Your task to perform on an android device: move a message to another label in the gmail app Image 0: 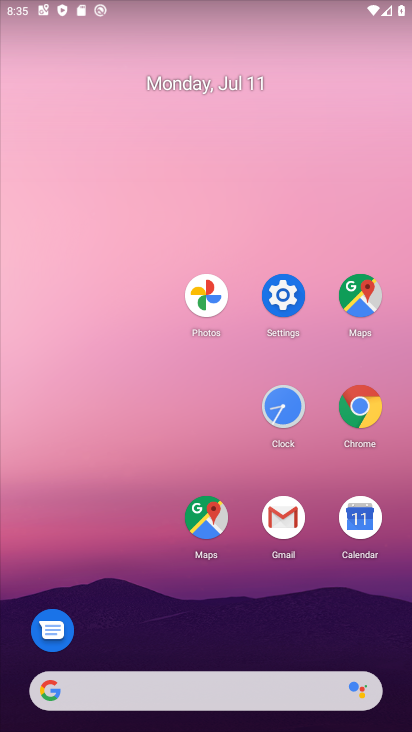
Step 0: click (284, 527)
Your task to perform on an android device: move a message to another label in the gmail app Image 1: 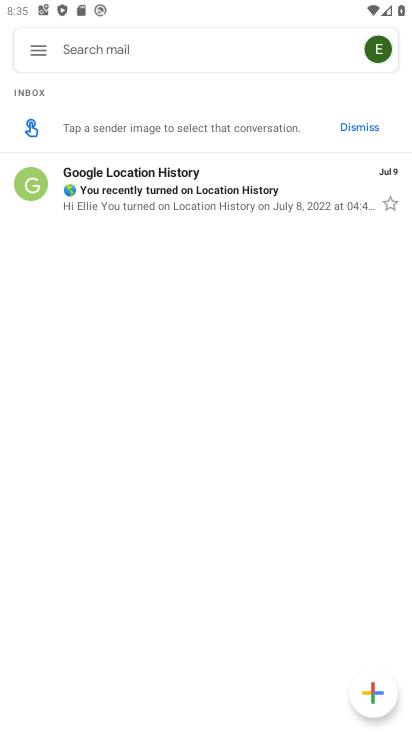
Step 1: click (152, 191)
Your task to perform on an android device: move a message to another label in the gmail app Image 2: 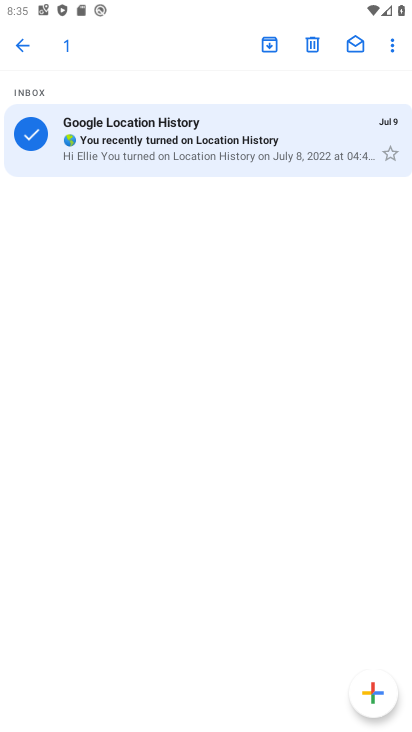
Step 2: click (392, 158)
Your task to perform on an android device: move a message to another label in the gmail app Image 3: 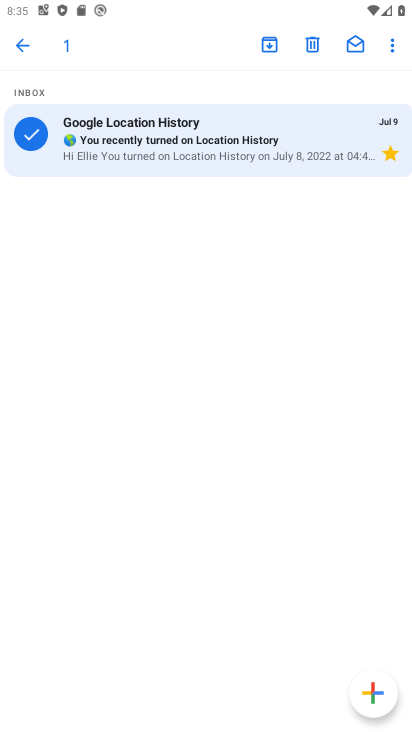
Step 3: task complete